Your task to perform on an android device: Open Google Chrome and open the bookmarks view Image 0: 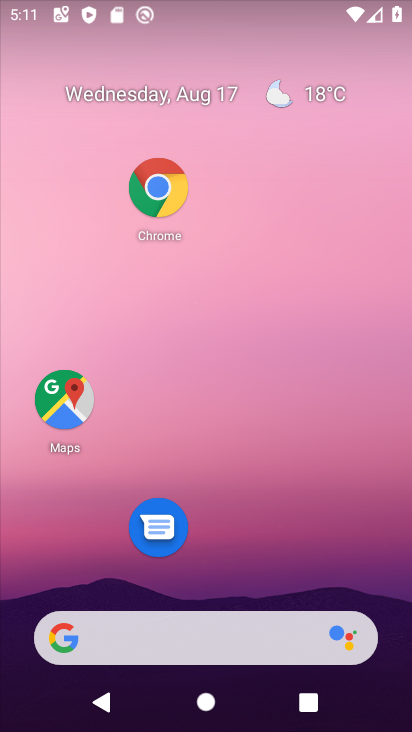
Step 0: click (170, 172)
Your task to perform on an android device: Open Google Chrome and open the bookmarks view Image 1: 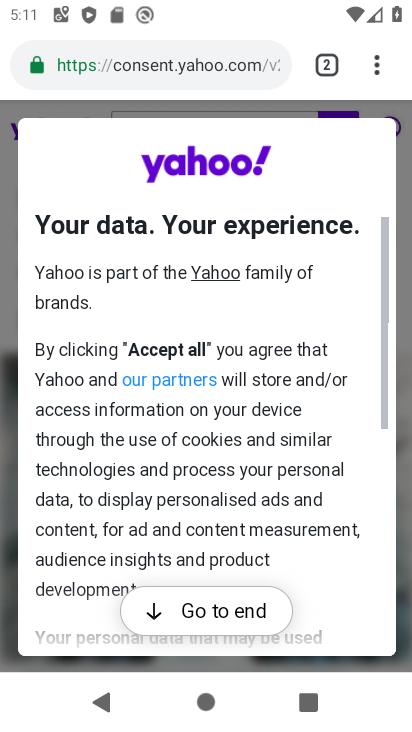
Step 1: click (382, 69)
Your task to perform on an android device: Open Google Chrome and open the bookmarks view Image 2: 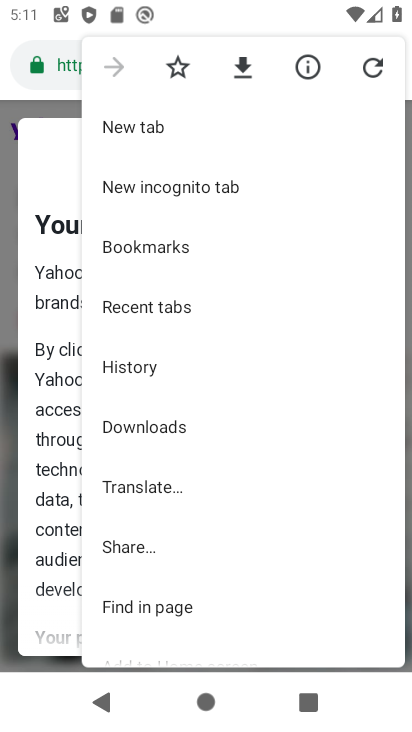
Step 2: click (175, 243)
Your task to perform on an android device: Open Google Chrome and open the bookmarks view Image 3: 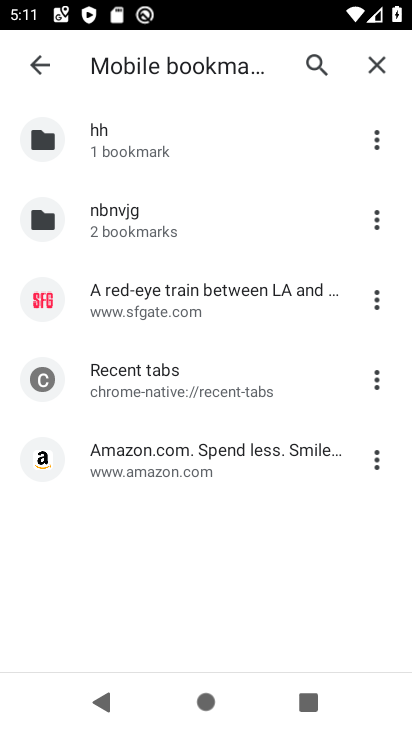
Step 3: task complete